Your task to perform on an android device: Turn off the flashlight Image 0: 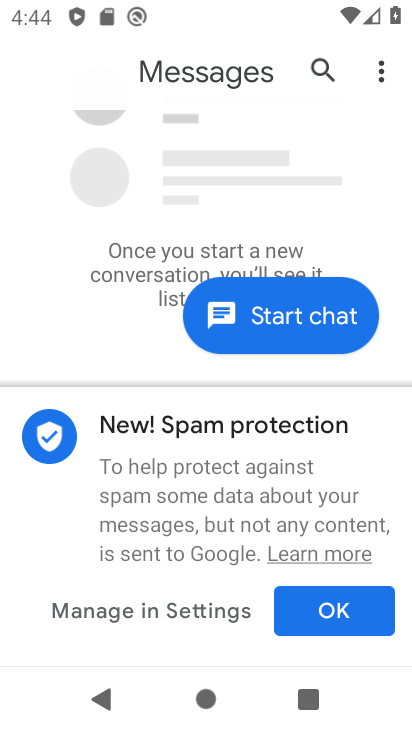
Step 0: press home button
Your task to perform on an android device: Turn off the flashlight Image 1: 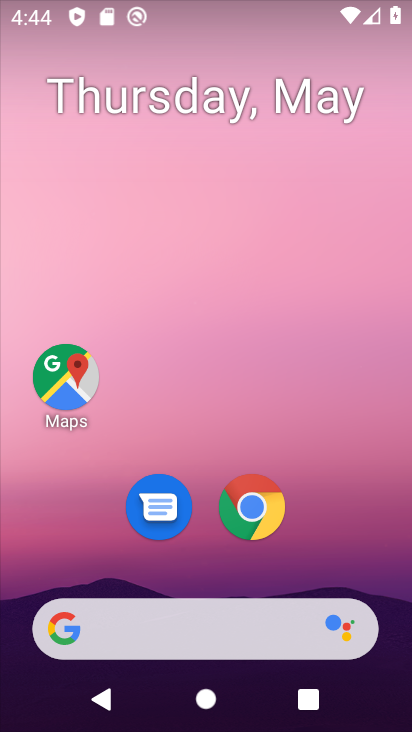
Step 1: drag from (354, 495) to (338, 43)
Your task to perform on an android device: Turn off the flashlight Image 2: 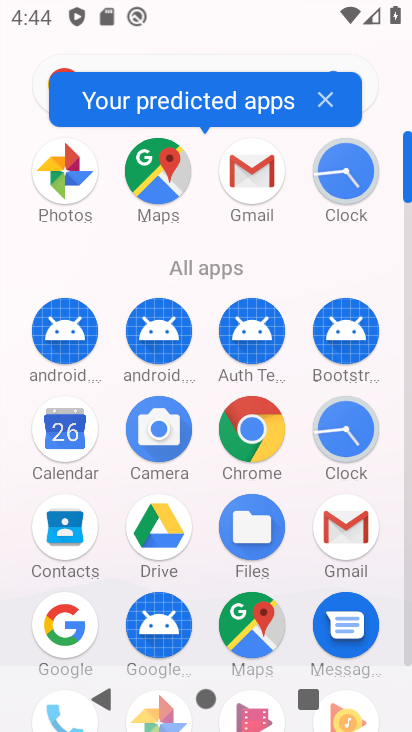
Step 2: drag from (303, 548) to (313, 190)
Your task to perform on an android device: Turn off the flashlight Image 3: 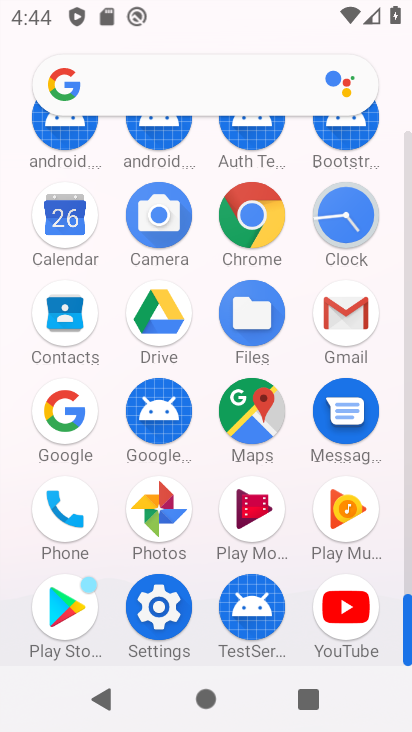
Step 3: click (164, 593)
Your task to perform on an android device: Turn off the flashlight Image 4: 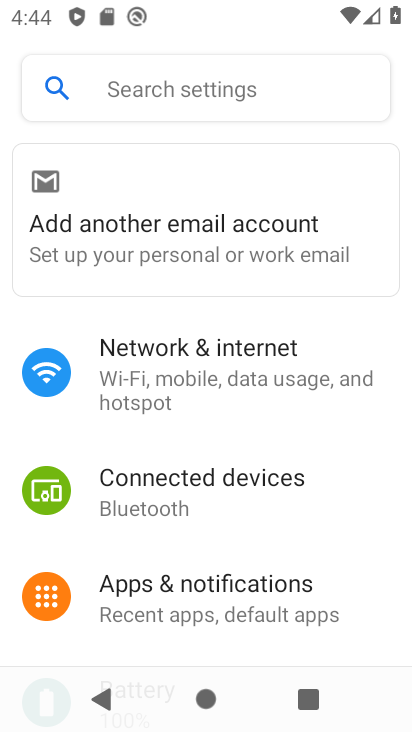
Step 4: drag from (182, 588) to (236, 255)
Your task to perform on an android device: Turn off the flashlight Image 5: 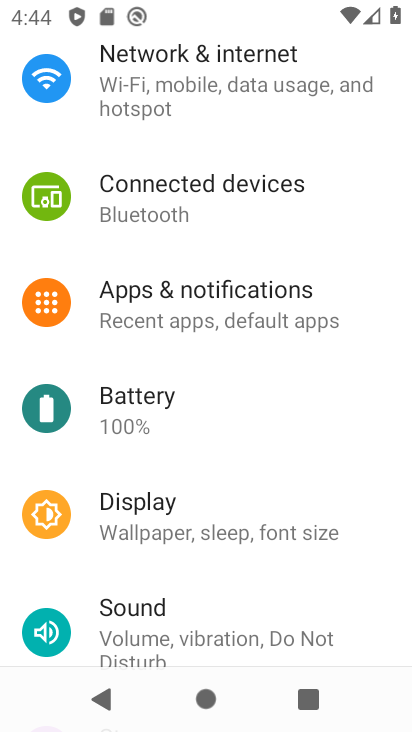
Step 5: click (171, 501)
Your task to perform on an android device: Turn off the flashlight Image 6: 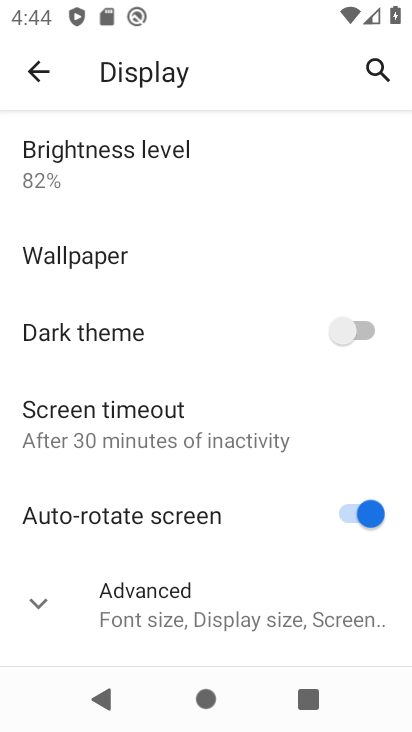
Step 6: task complete